Your task to perform on an android device: toggle show notifications on the lock screen Image 0: 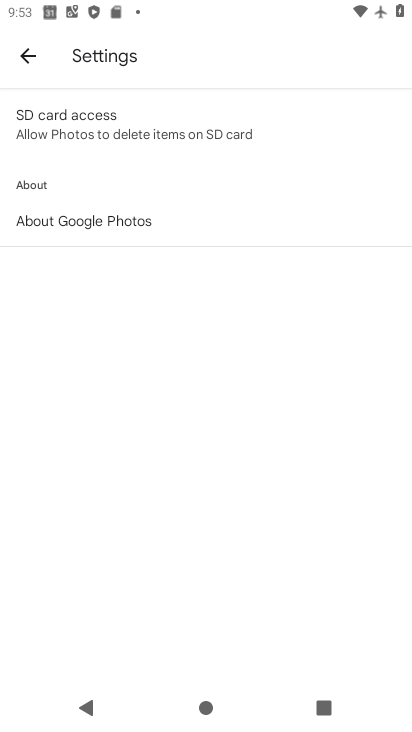
Step 0: press home button
Your task to perform on an android device: toggle show notifications on the lock screen Image 1: 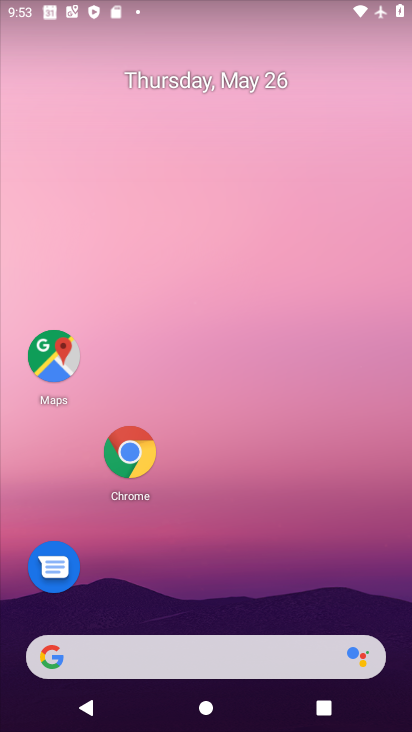
Step 1: drag from (198, 652) to (380, 106)
Your task to perform on an android device: toggle show notifications on the lock screen Image 2: 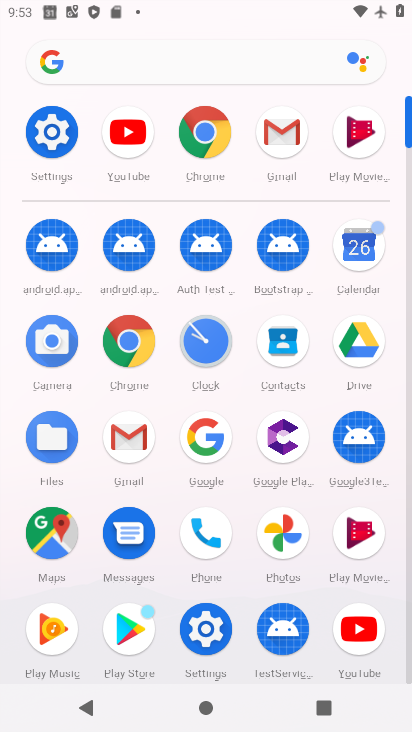
Step 2: click (52, 132)
Your task to perform on an android device: toggle show notifications on the lock screen Image 3: 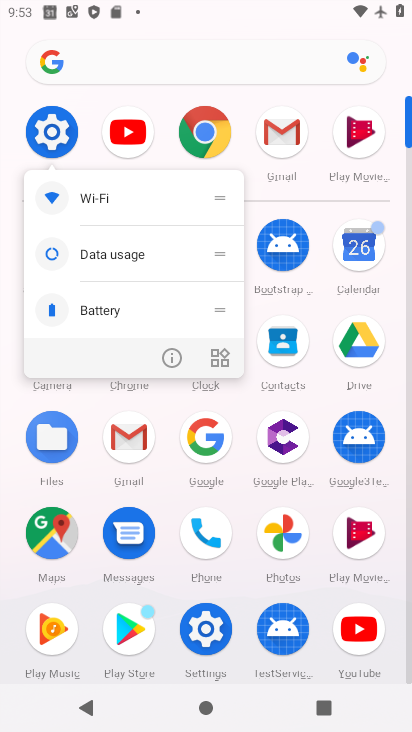
Step 3: click (50, 132)
Your task to perform on an android device: toggle show notifications on the lock screen Image 4: 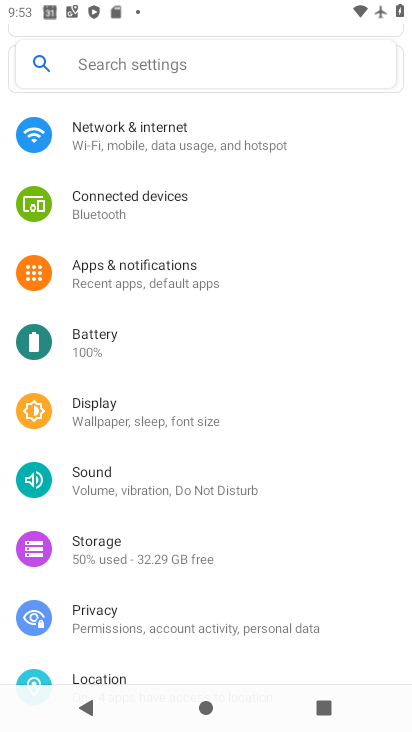
Step 4: click (201, 282)
Your task to perform on an android device: toggle show notifications on the lock screen Image 5: 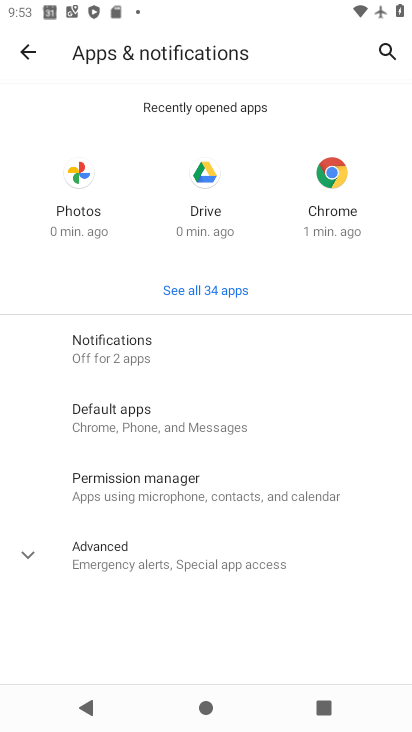
Step 5: click (143, 346)
Your task to perform on an android device: toggle show notifications on the lock screen Image 6: 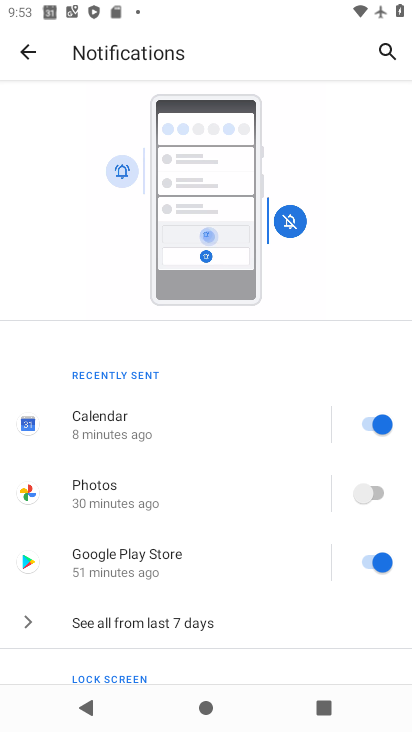
Step 6: drag from (210, 581) to (293, 275)
Your task to perform on an android device: toggle show notifications on the lock screen Image 7: 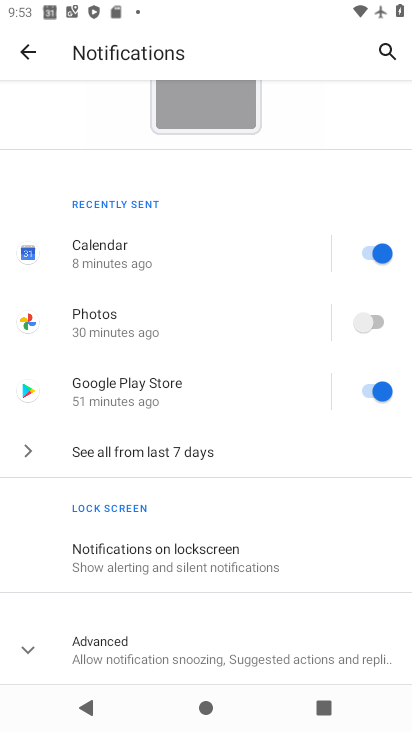
Step 7: click (215, 559)
Your task to perform on an android device: toggle show notifications on the lock screen Image 8: 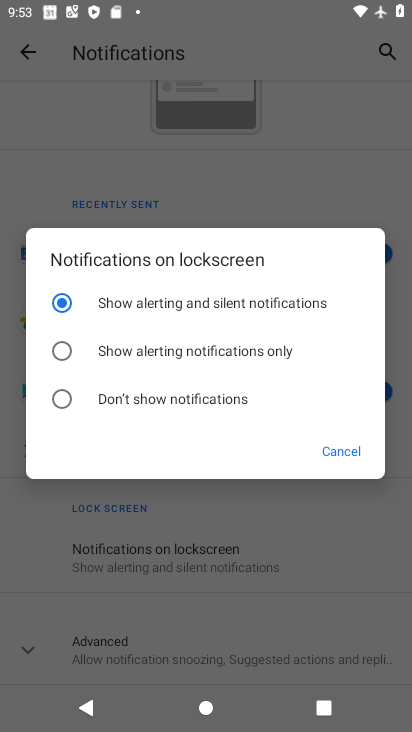
Step 8: click (66, 396)
Your task to perform on an android device: toggle show notifications on the lock screen Image 9: 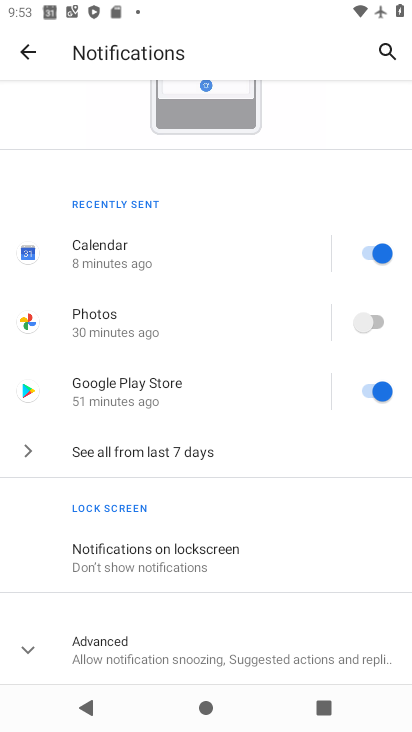
Step 9: task complete